Your task to perform on an android device: Is it going to rain today? Image 0: 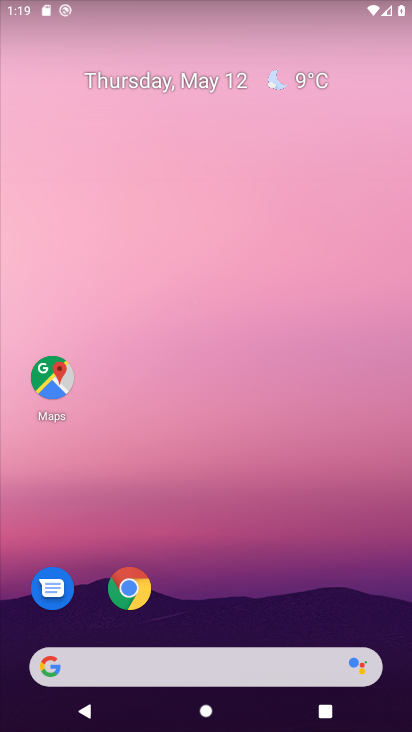
Step 0: drag from (323, 504) to (255, 0)
Your task to perform on an android device: Is it going to rain today? Image 1: 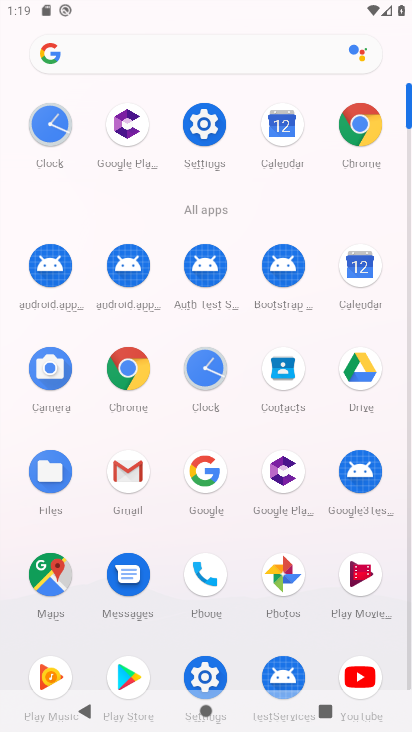
Step 1: press home button
Your task to perform on an android device: Is it going to rain today? Image 2: 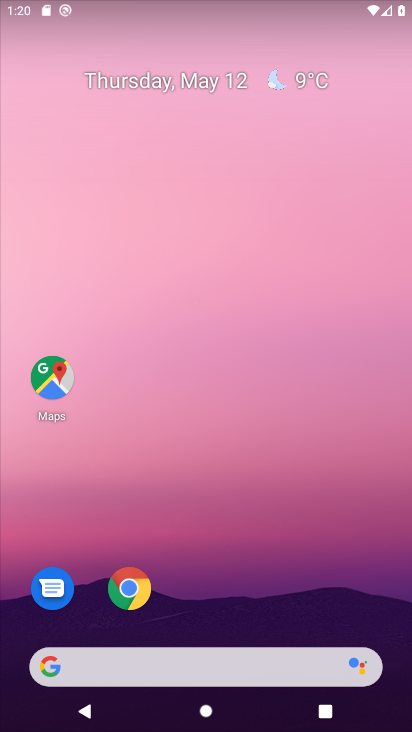
Step 2: click (313, 78)
Your task to perform on an android device: Is it going to rain today? Image 3: 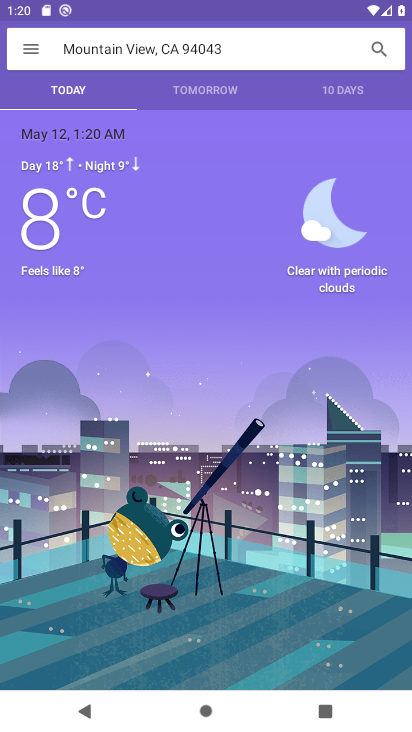
Step 3: task complete